Your task to perform on an android device: Search for Italian restaurants on Maps Image 0: 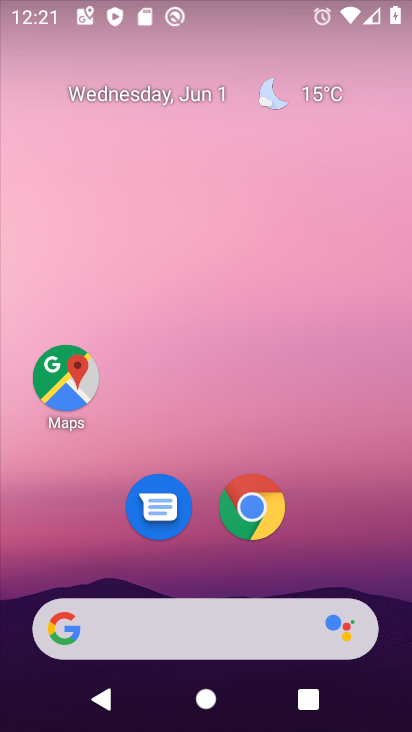
Step 0: click (63, 377)
Your task to perform on an android device: Search for Italian restaurants on Maps Image 1: 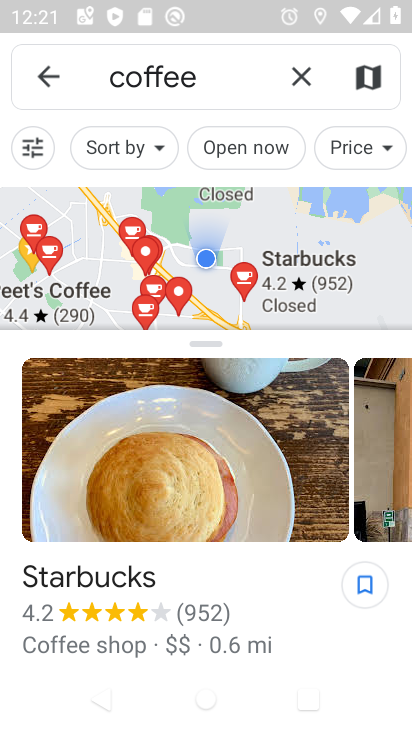
Step 1: click (302, 76)
Your task to perform on an android device: Search for Italian restaurants on Maps Image 2: 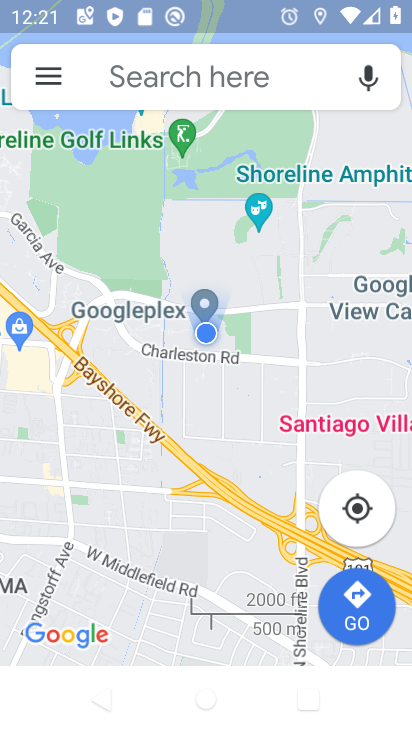
Step 2: click (257, 88)
Your task to perform on an android device: Search for Italian restaurants on Maps Image 3: 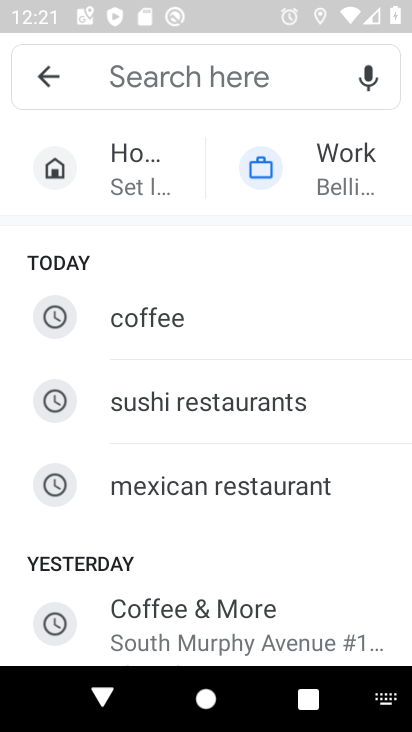
Step 3: type "Italian restaurants"
Your task to perform on an android device: Search for Italian restaurants on Maps Image 4: 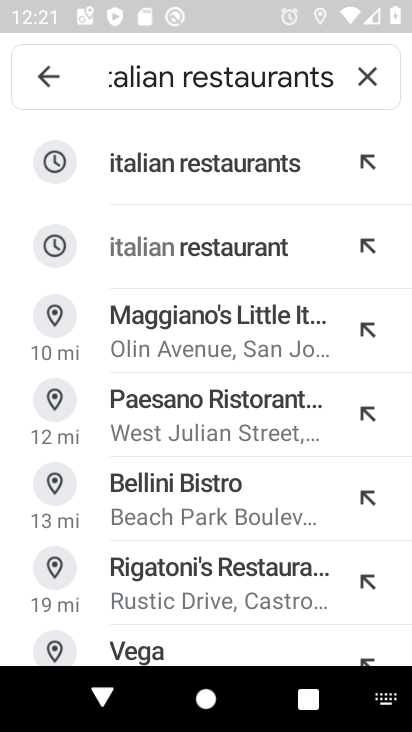
Step 4: click (232, 167)
Your task to perform on an android device: Search for Italian restaurants on Maps Image 5: 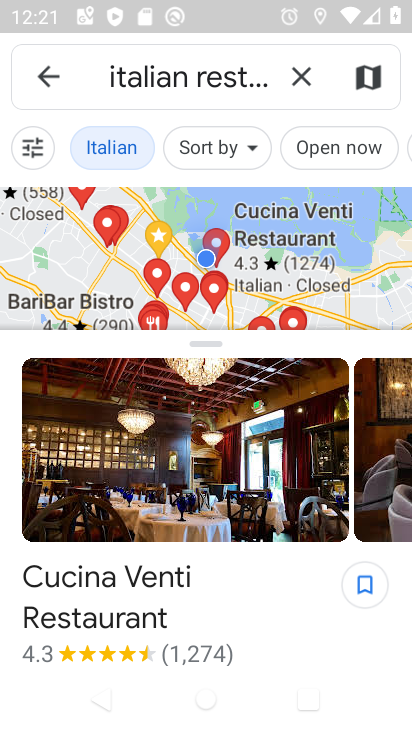
Step 5: task complete